Your task to perform on an android device: open chrome privacy settings Image 0: 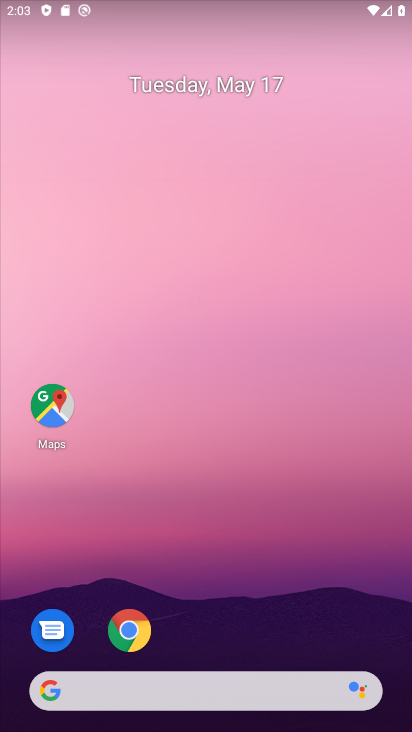
Step 0: click (292, 174)
Your task to perform on an android device: open chrome privacy settings Image 1: 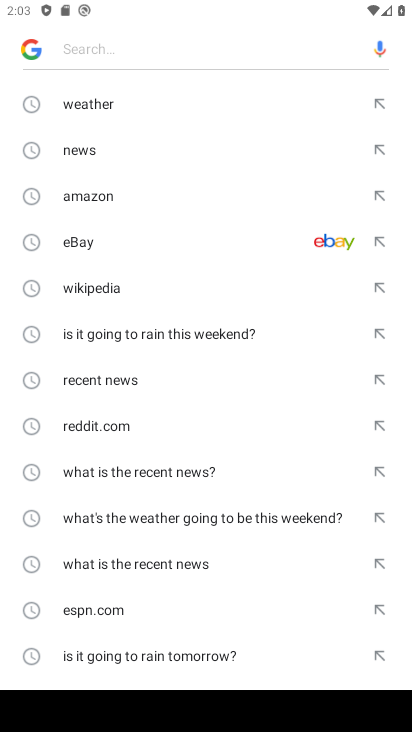
Step 1: press back button
Your task to perform on an android device: open chrome privacy settings Image 2: 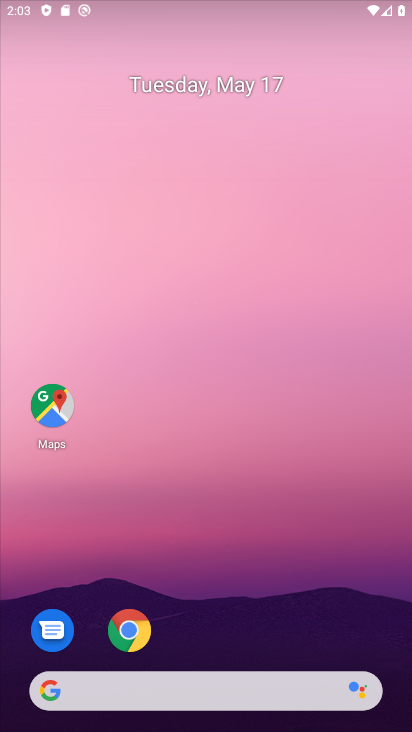
Step 2: drag from (300, 679) to (299, 191)
Your task to perform on an android device: open chrome privacy settings Image 3: 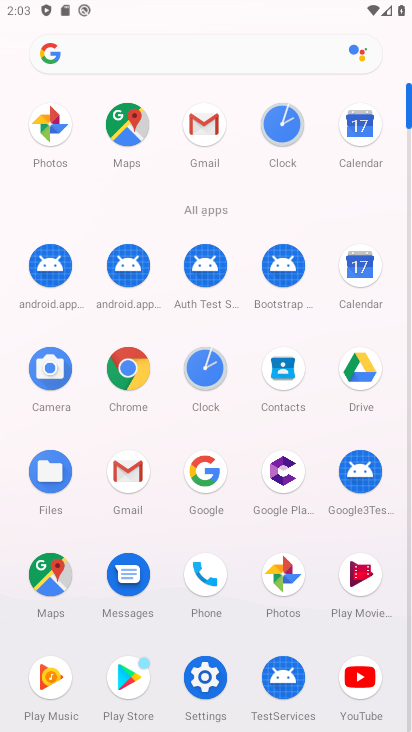
Step 3: click (132, 375)
Your task to perform on an android device: open chrome privacy settings Image 4: 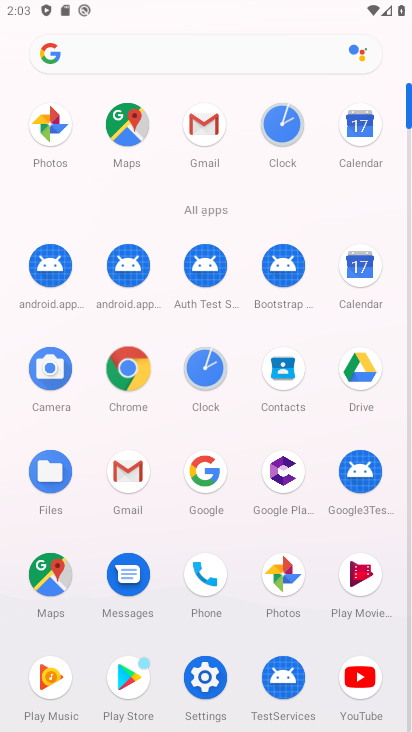
Step 4: click (132, 375)
Your task to perform on an android device: open chrome privacy settings Image 5: 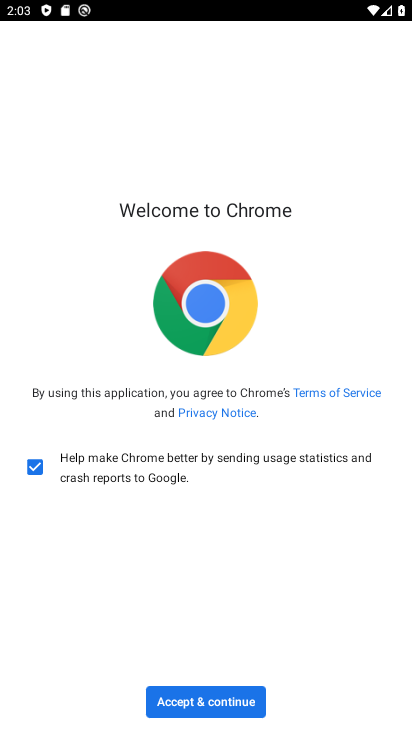
Step 5: click (206, 700)
Your task to perform on an android device: open chrome privacy settings Image 6: 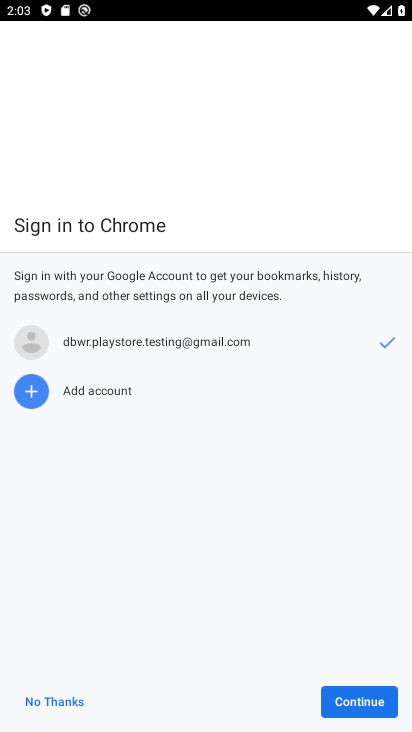
Step 6: click (352, 702)
Your task to perform on an android device: open chrome privacy settings Image 7: 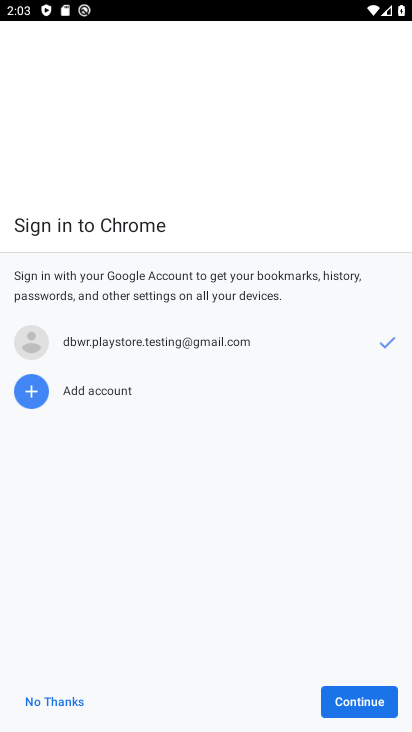
Step 7: click (353, 697)
Your task to perform on an android device: open chrome privacy settings Image 8: 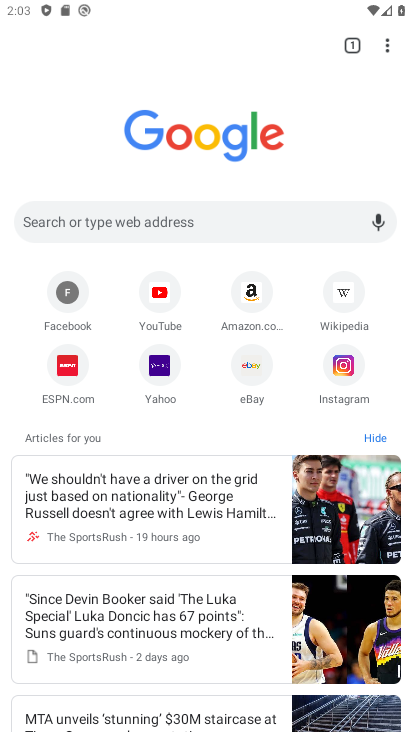
Step 8: drag from (388, 44) to (218, 382)
Your task to perform on an android device: open chrome privacy settings Image 9: 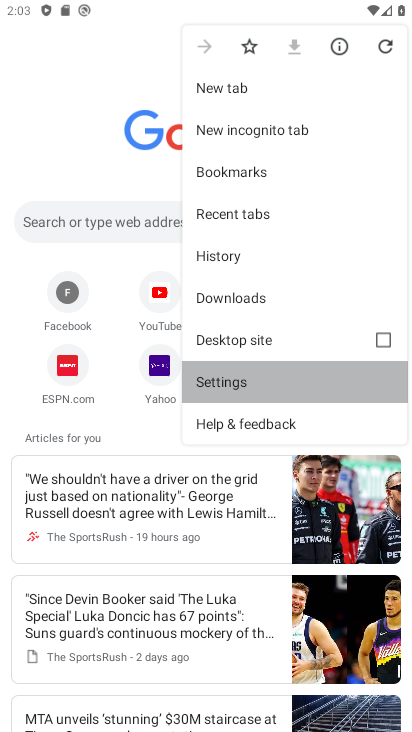
Step 9: click (218, 382)
Your task to perform on an android device: open chrome privacy settings Image 10: 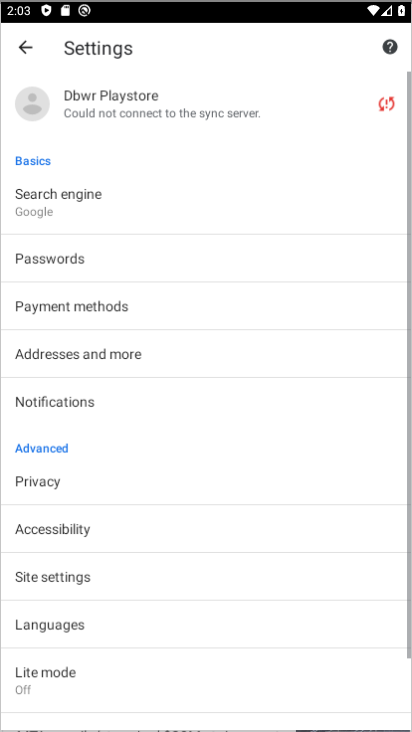
Step 10: click (225, 380)
Your task to perform on an android device: open chrome privacy settings Image 11: 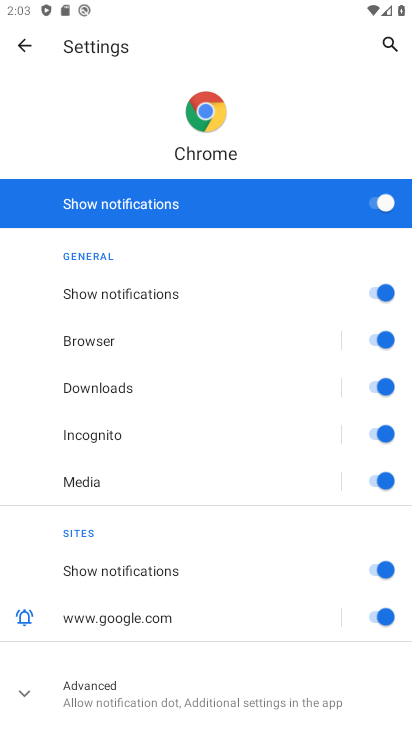
Step 11: click (20, 49)
Your task to perform on an android device: open chrome privacy settings Image 12: 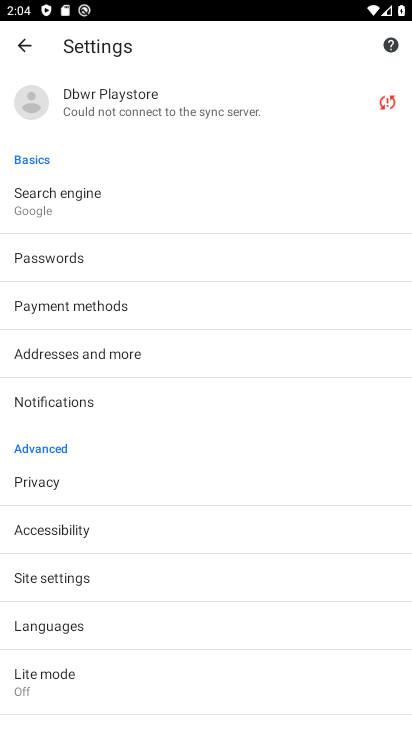
Step 12: click (33, 474)
Your task to perform on an android device: open chrome privacy settings Image 13: 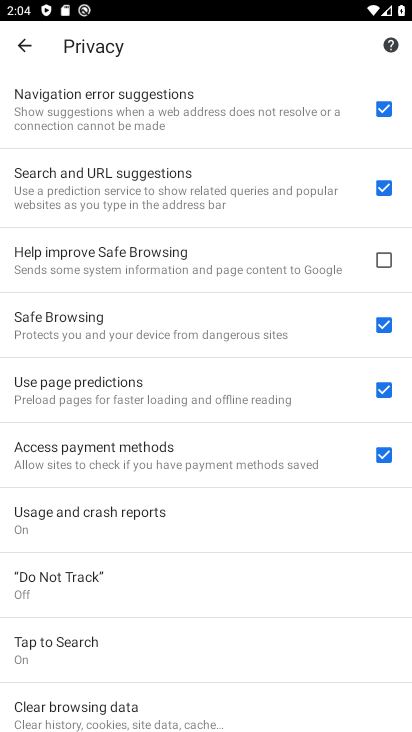
Step 13: task complete